Your task to perform on an android device: toggle notifications settings in the gmail app Image 0: 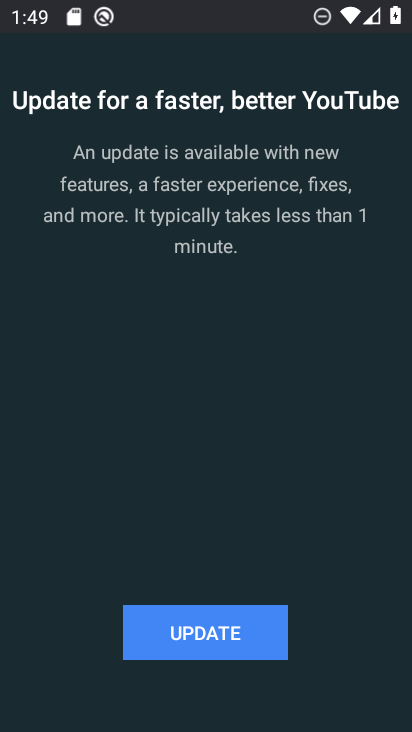
Step 0: press back button
Your task to perform on an android device: toggle notifications settings in the gmail app Image 1: 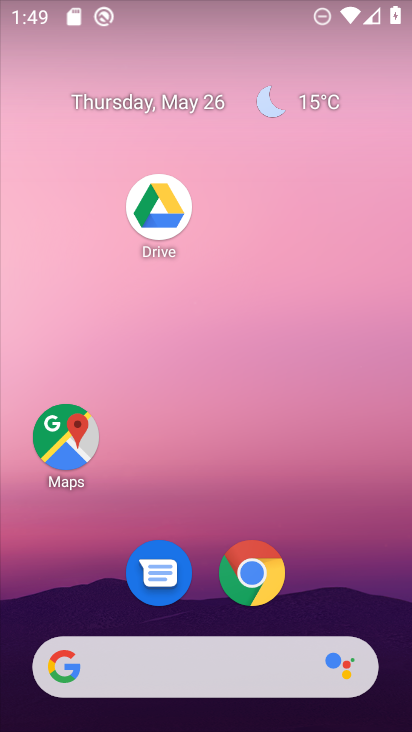
Step 1: drag from (332, 534) to (332, 183)
Your task to perform on an android device: toggle notifications settings in the gmail app Image 2: 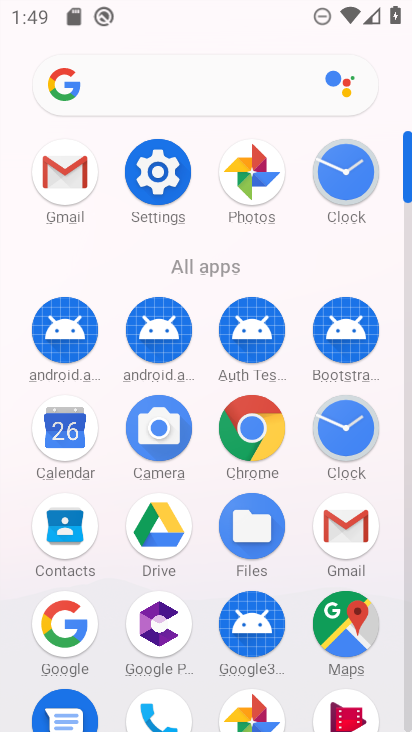
Step 2: click (322, 539)
Your task to perform on an android device: toggle notifications settings in the gmail app Image 3: 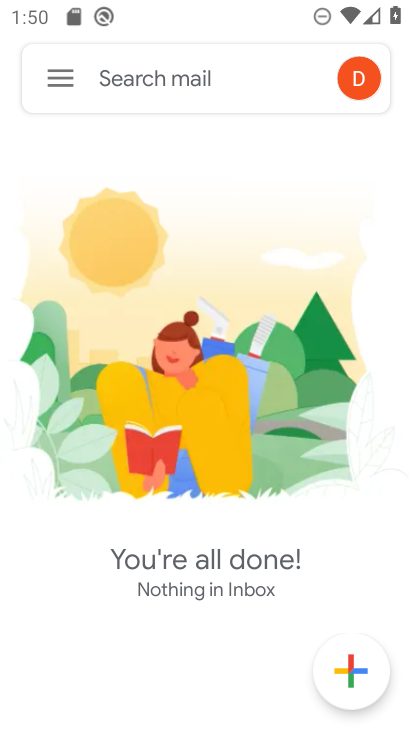
Step 3: click (70, 91)
Your task to perform on an android device: toggle notifications settings in the gmail app Image 4: 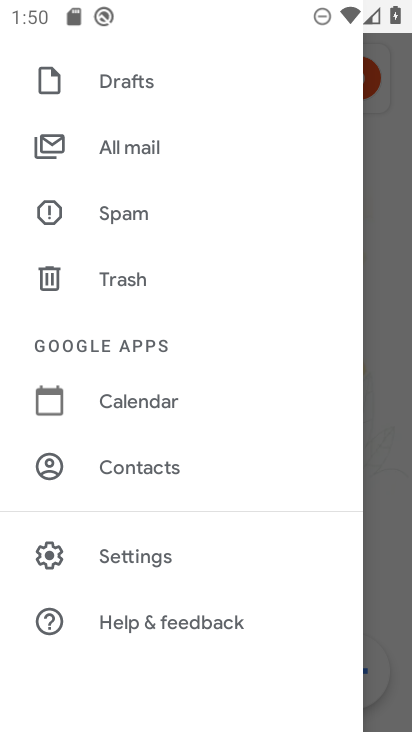
Step 4: click (198, 549)
Your task to perform on an android device: toggle notifications settings in the gmail app Image 5: 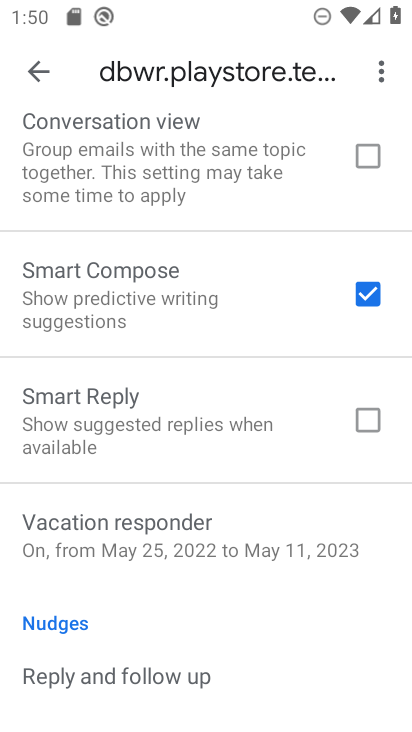
Step 5: drag from (110, 135) to (108, 544)
Your task to perform on an android device: toggle notifications settings in the gmail app Image 6: 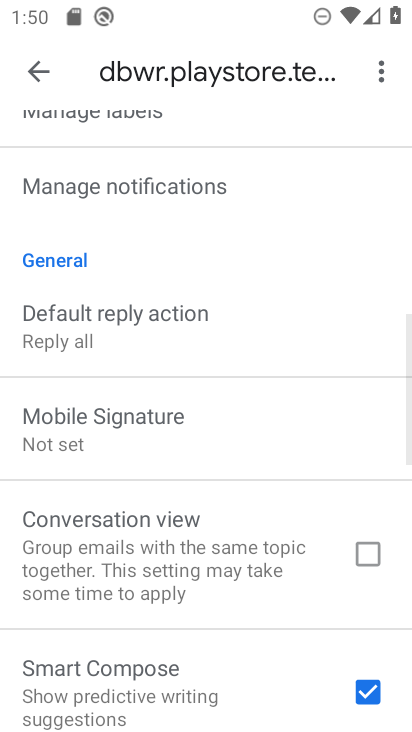
Step 6: drag from (109, 240) to (99, 670)
Your task to perform on an android device: toggle notifications settings in the gmail app Image 7: 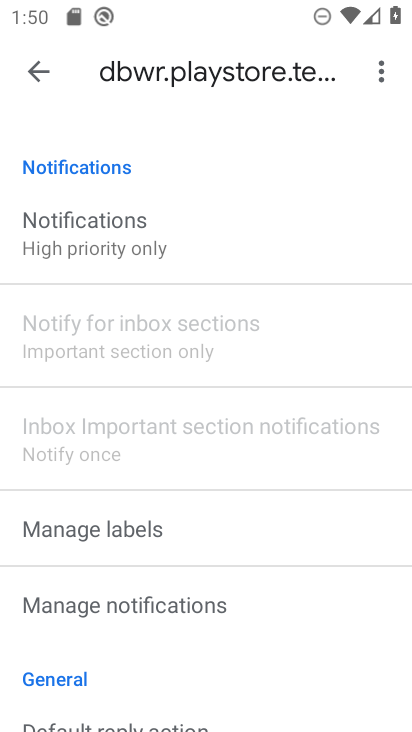
Step 7: drag from (136, 208) to (143, 270)
Your task to perform on an android device: toggle notifications settings in the gmail app Image 8: 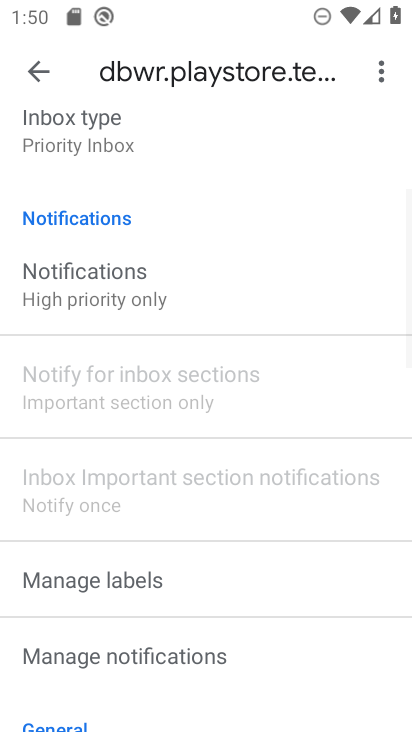
Step 8: click (155, 665)
Your task to perform on an android device: toggle notifications settings in the gmail app Image 9: 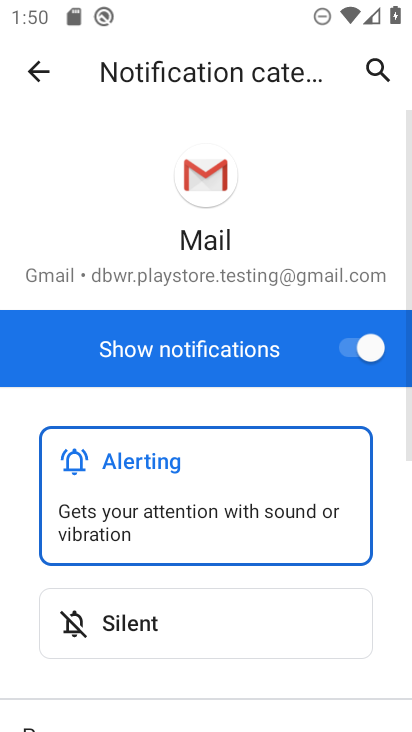
Step 9: drag from (212, 646) to (194, 258)
Your task to perform on an android device: toggle notifications settings in the gmail app Image 10: 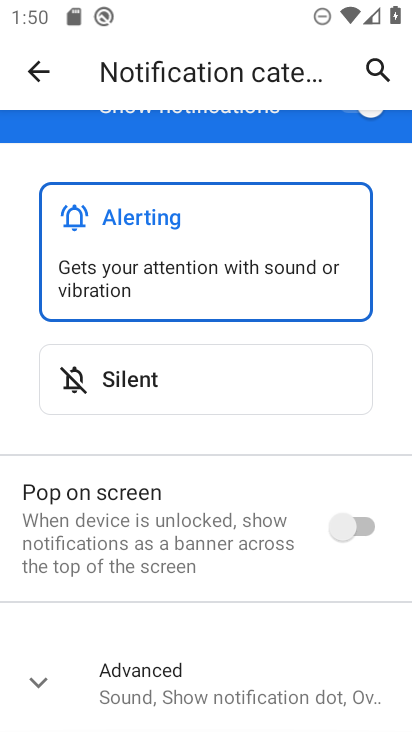
Step 10: click (166, 396)
Your task to perform on an android device: toggle notifications settings in the gmail app Image 11: 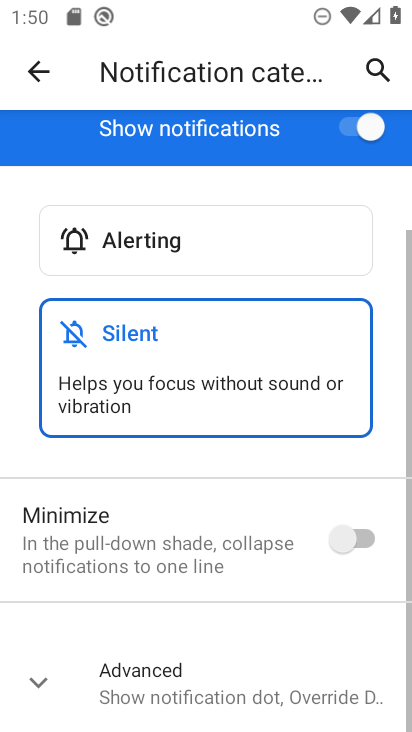
Step 11: click (359, 526)
Your task to perform on an android device: toggle notifications settings in the gmail app Image 12: 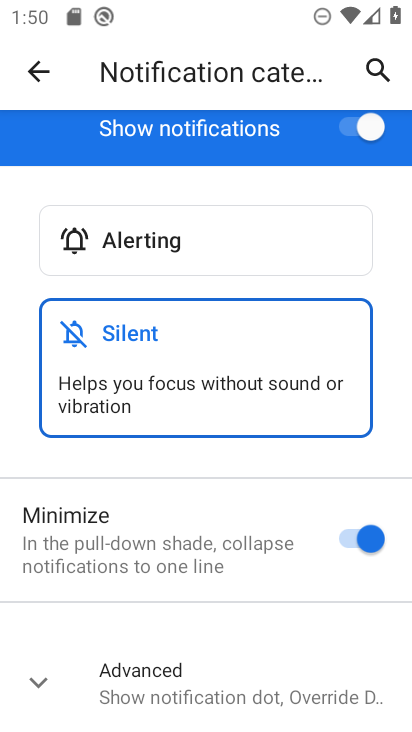
Step 12: task complete